Your task to perform on an android device: set the stopwatch Image 0: 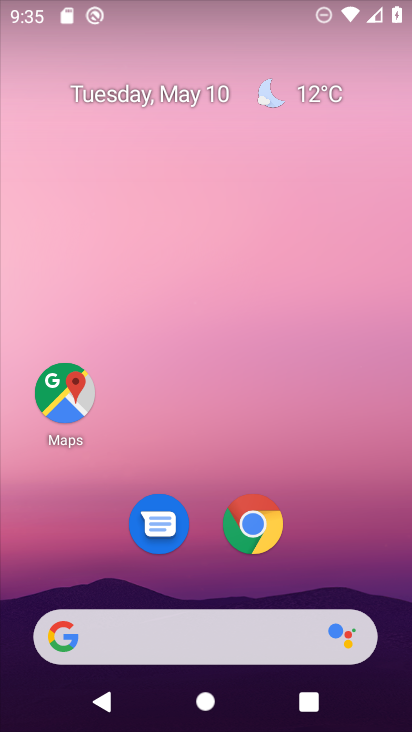
Step 0: drag from (339, 520) to (317, 26)
Your task to perform on an android device: set the stopwatch Image 1: 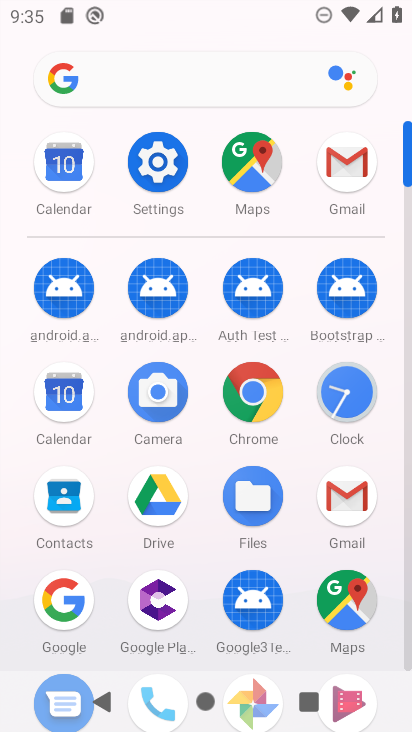
Step 1: click (356, 394)
Your task to perform on an android device: set the stopwatch Image 2: 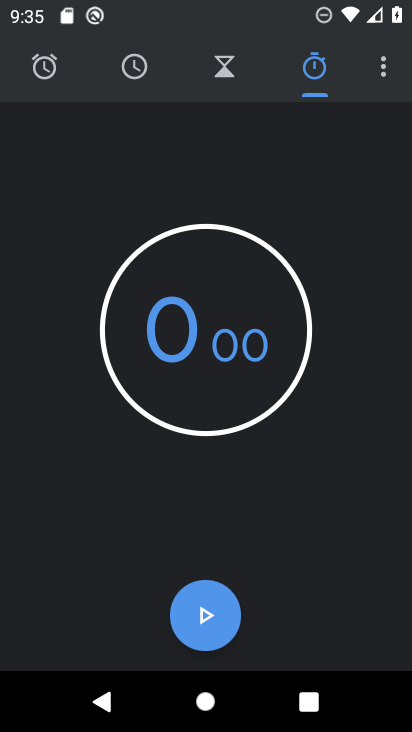
Step 2: click (232, 306)
Your task to perform on an android device: set the stopwatch Image 3: 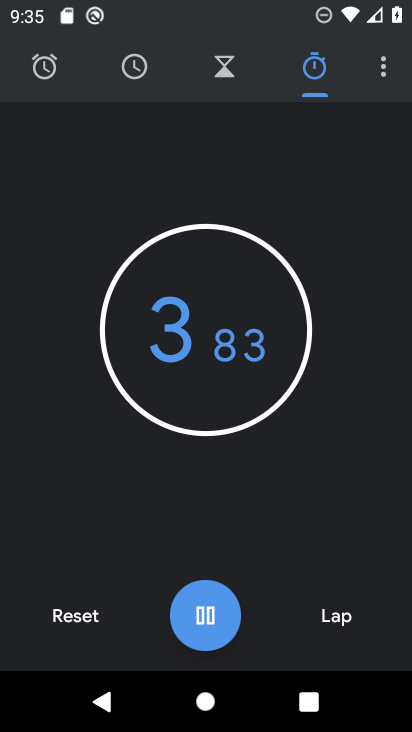
Step 3: click (204, 620)
Your task to perform on an android device: set the stopwatch Image 4: 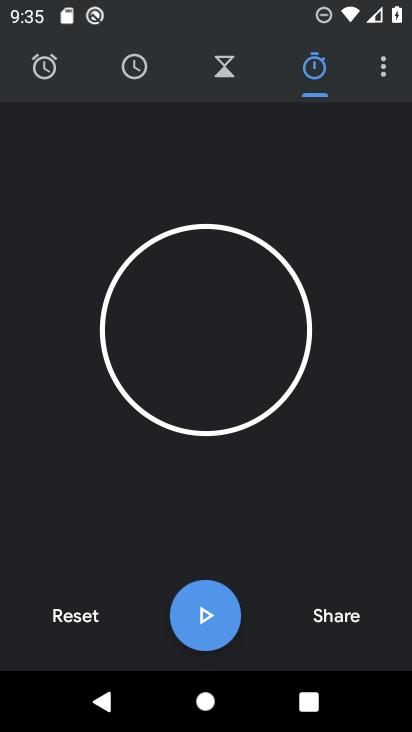
Step 4: task complete